Your task to perform on an android device: toggle pop-ups in chrome Image 0: 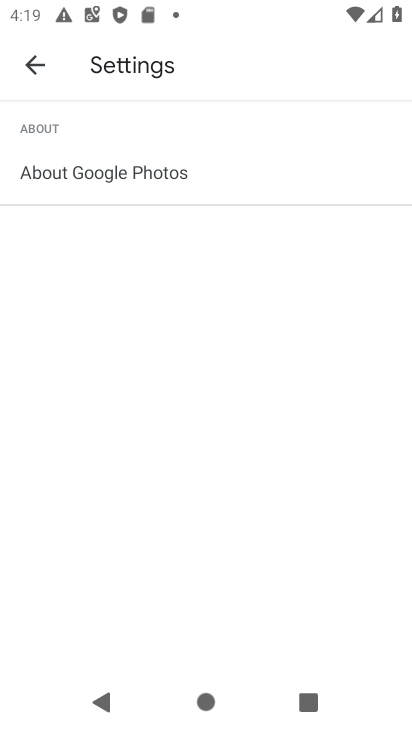
Step 0: press home button
Your task to perform on an android device: toggle pop-ups in chrome Image 1: 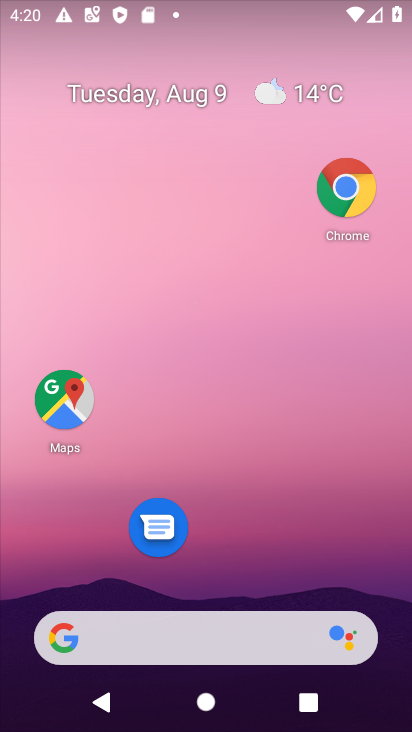
Step 1: click (356, 164)
Your task to perform on an android device: toggle pop-ups in chrome Image 2: 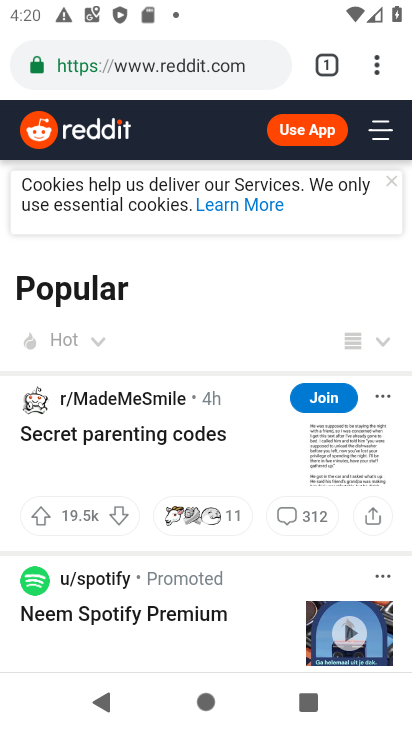
Step 2: click (385, 70)
Your task to perform on an android device: toggle pop-ups in chrome Image 3: 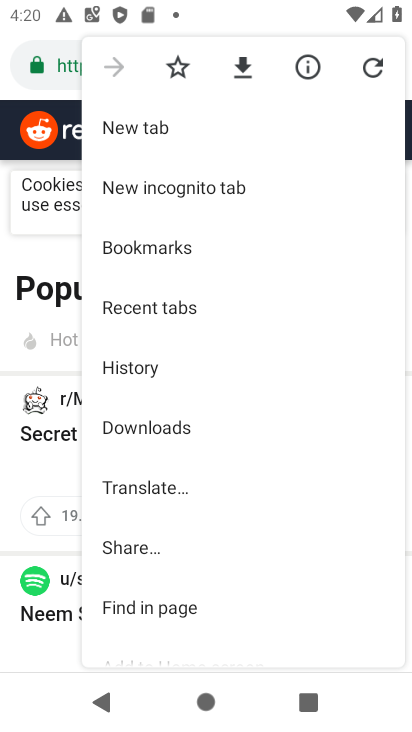
Step 3: drag from (160, 570) to (255, 154)
Your task to perform on an android device: toggle pop-ups in chrome Image 4: 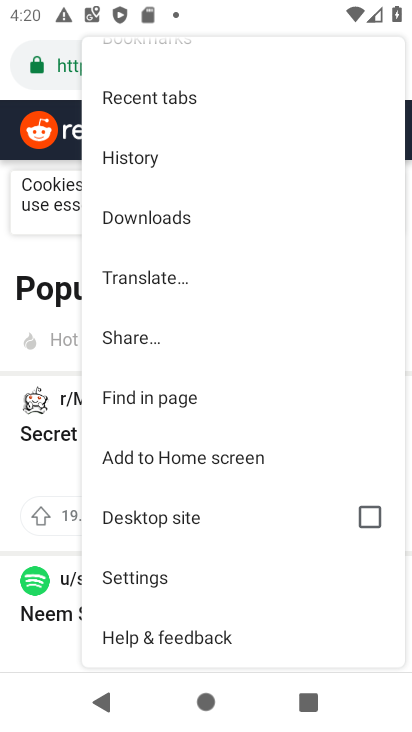
Step 4: click (159, 583)
Your task to perform on an android device: toggle pop-ups in chrome Image 5: 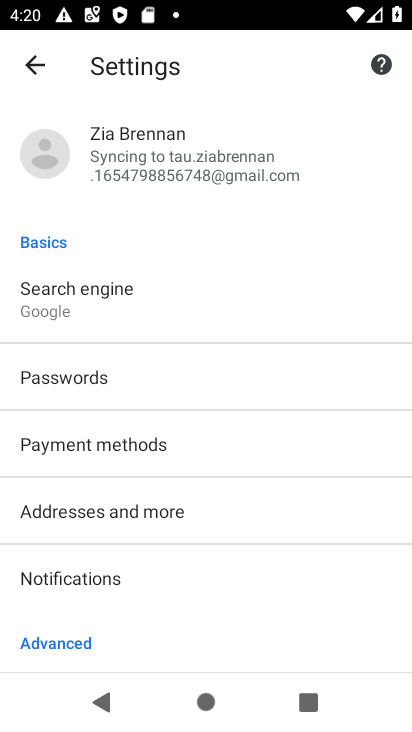
Step 5: drag from (159, 583) to (208, 151)
Your task to perform on an android device: toggle pop-ups in chrome Image 6: 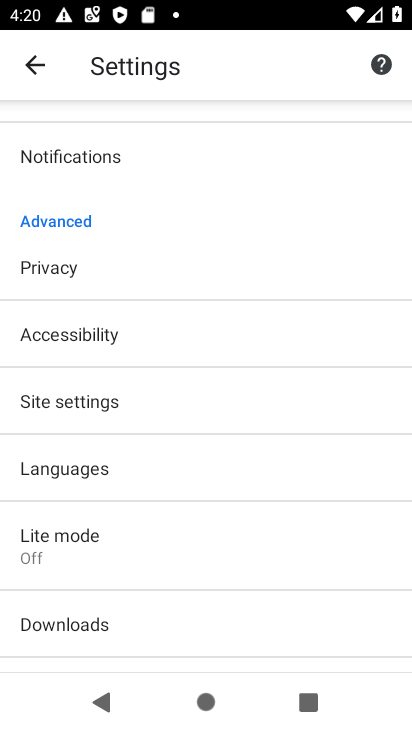
Step 6: drag from (55, 623) to (94, 288)
Your task to perform on an android device: toggle pop-ups in chrome Image 7: 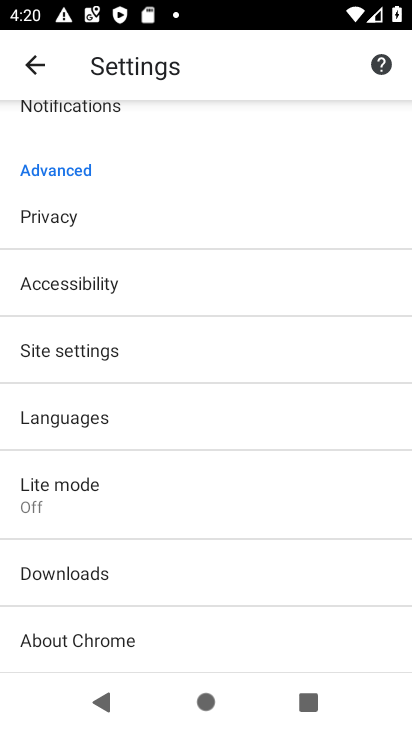
Step 7: click (130, 379)
Your task to perform on an android device: toggle pop-ups in chrome Image 8: 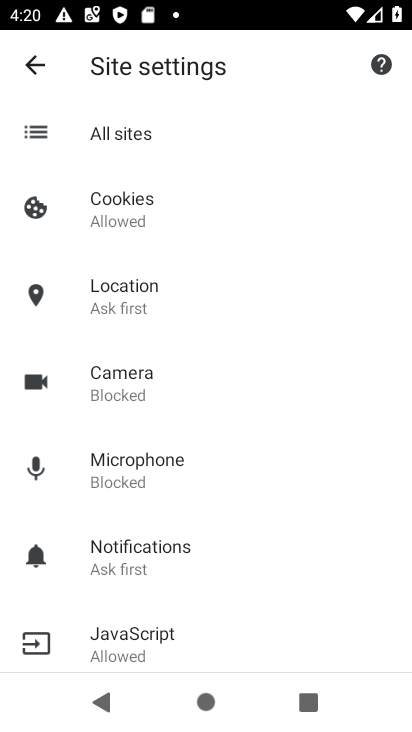
Step 8: drag from (228, 462) to (258, 97)
Your task to perform on an android device: toggle pop-ups in chrome Image 9: 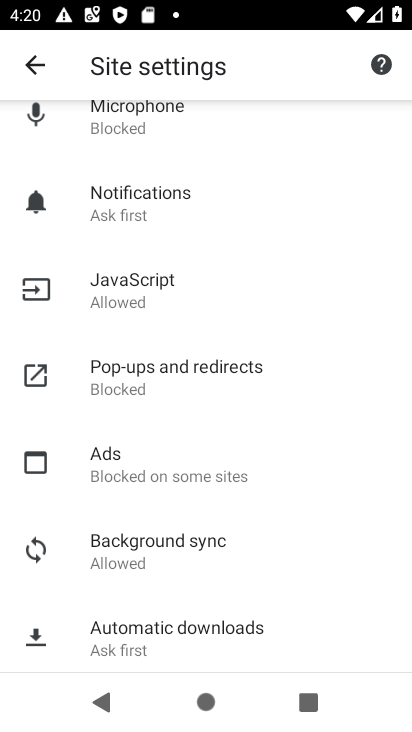
Step 9: click (192, 385)
Your task to perform on an android device: toggle pop-ups in chrome Image 10: 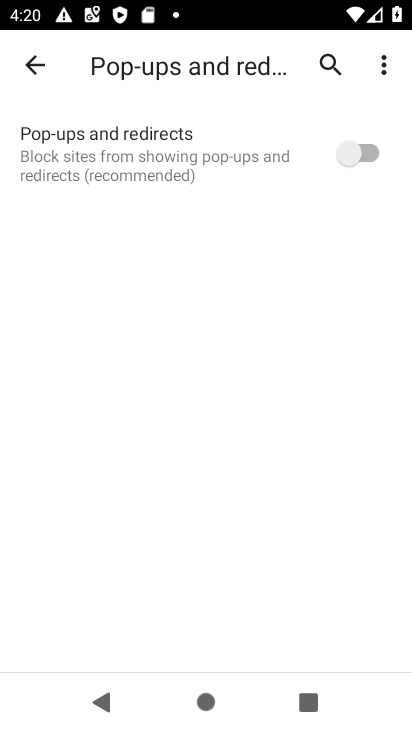
Step 10: click (370, 147)
Your task to perform on an android device: toggle pop-ups in chrome Image 11: 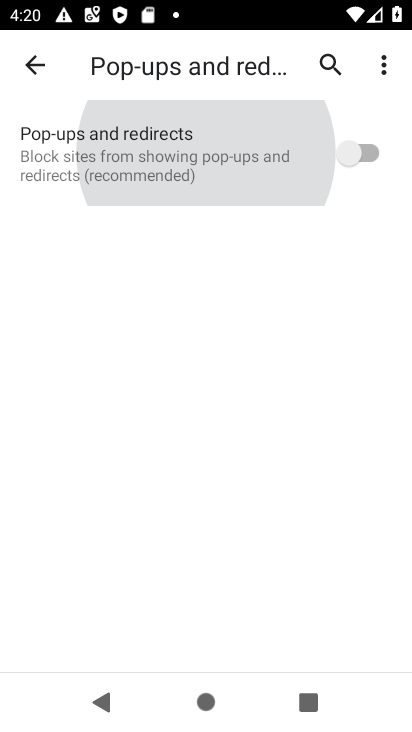
Step 11: click (370, 147)
Your task to perform on an android device: toggle pop-ups in chrome Image 12: 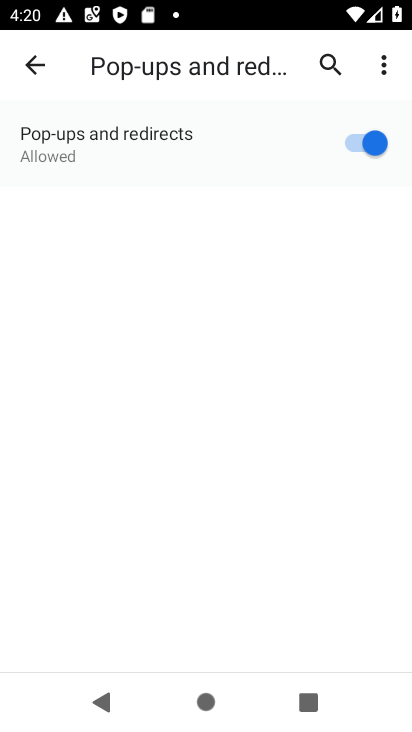
Step 12: click (370, 147)
Your task to perform on an android device: toggle pop-ups in chrome Image 13: 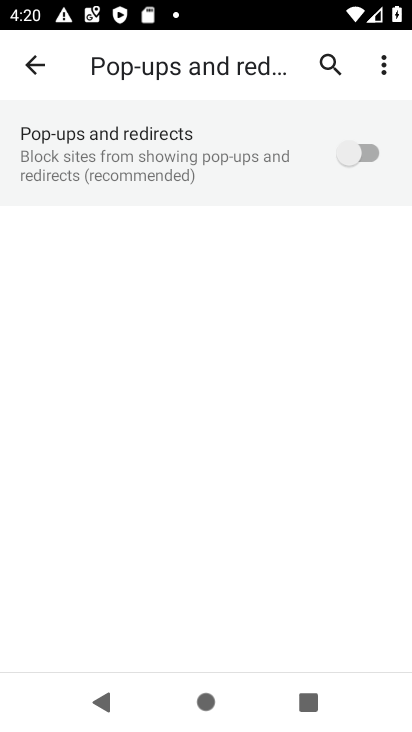
Step 13: click (370, 147)
Your task to perform on an android device: toggle pop-ups in chrome Image 14: 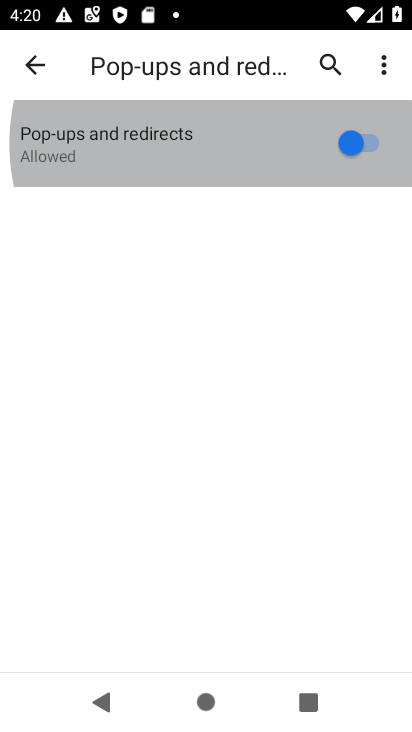
Step 14: click (370, 147)
Your task to perform on an android device: toggle pop-ups in chrome Image 15: 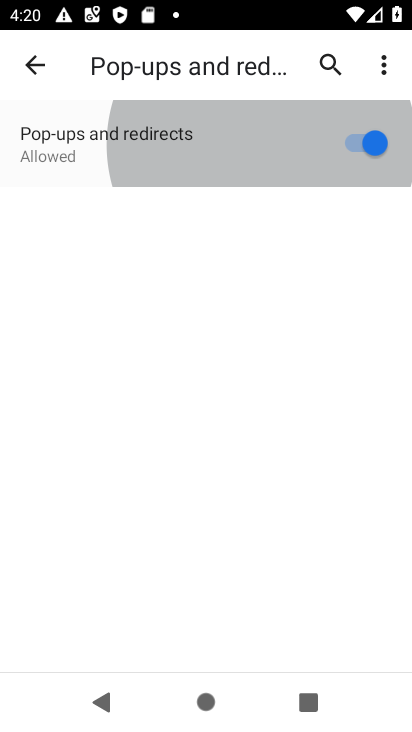
Step 15: click (370, 147)
Your task to perform on an android device: toggle pop-ups in chrome Image 16: 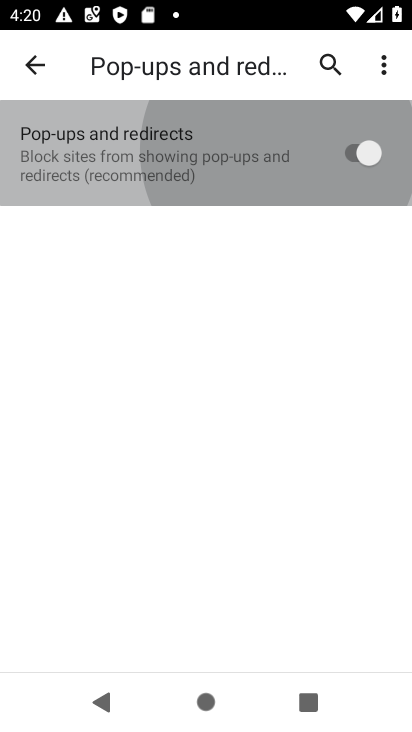
Step 16: click (370, 147)
Your task to perform on an android device: toggle pop-ups in chrome Image 17: 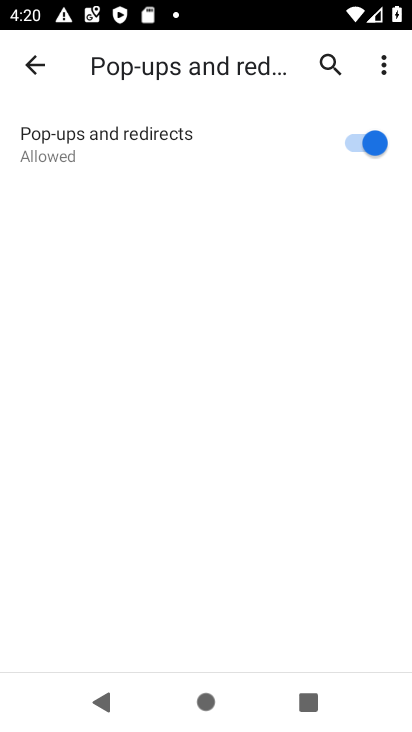
Step 17: click (370, 147)
Your task to perform on an android device: toggle pop-ups in chrome Image 18: 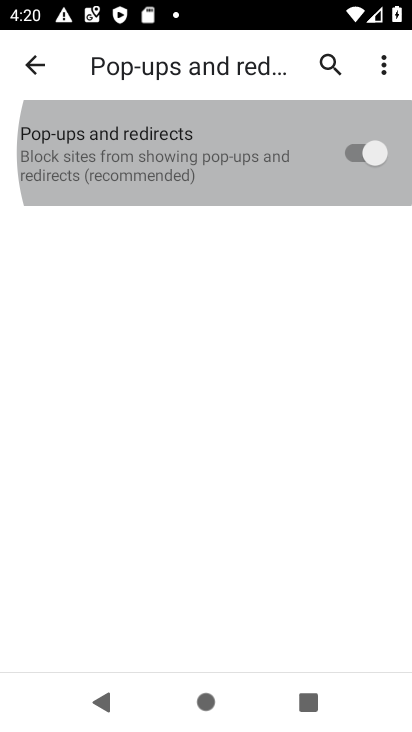
Step 18: click (370, 147)
Your task to perform on an android device: toggle pop-ups in chrome Image 19: 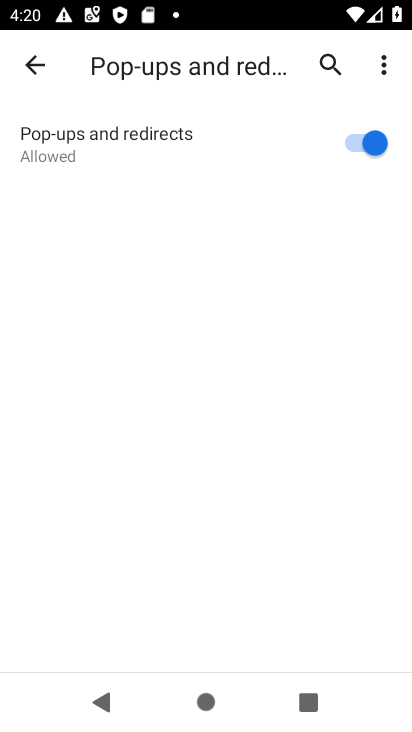
Step 19: task complete